Your task to perform on an android device: What is the news today? Image 0: 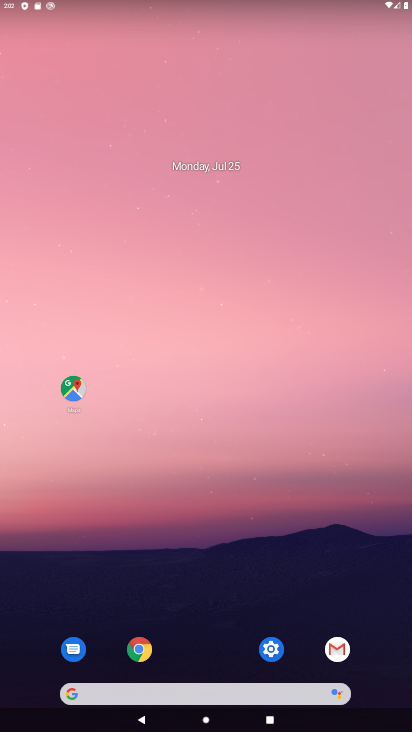
Step 0: click (207, 693)
Your task to perform on an android device: What is the news today? Image 1: 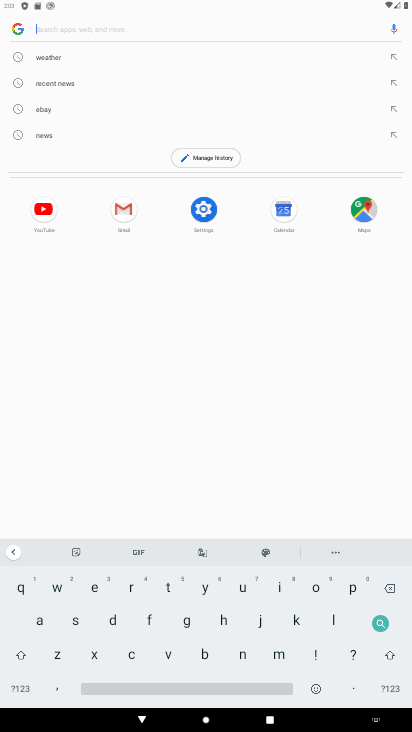
Step 1: click (240, 660)
Your task to perform on an android device: What is the news today? Image 2: 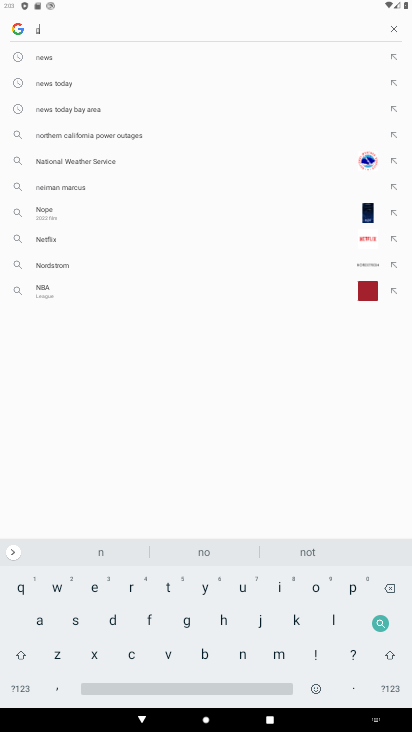
Step 2: click (94, 584)
Your task to perform on an android device: What is the news today? Image 3: 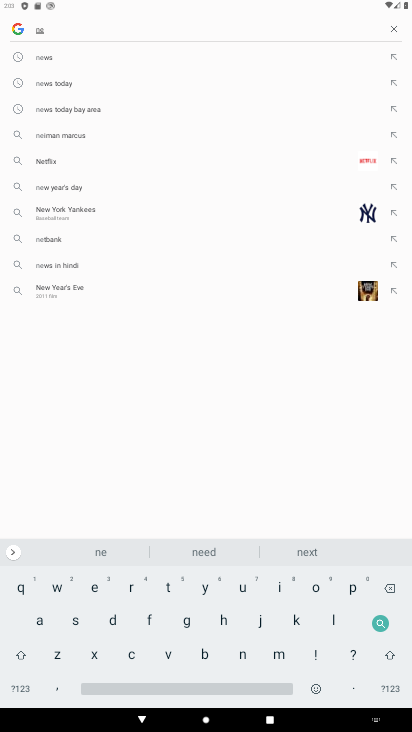
Step 3: click (44, 585)
Your task to perform on an android device: What is the news today? Image 4: 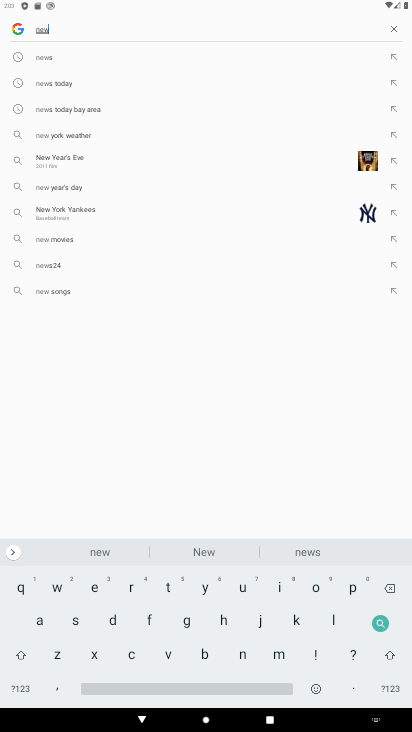
Step 4: click (53, 56)
Your task to perform on an android device: What is the news today? Image 5: 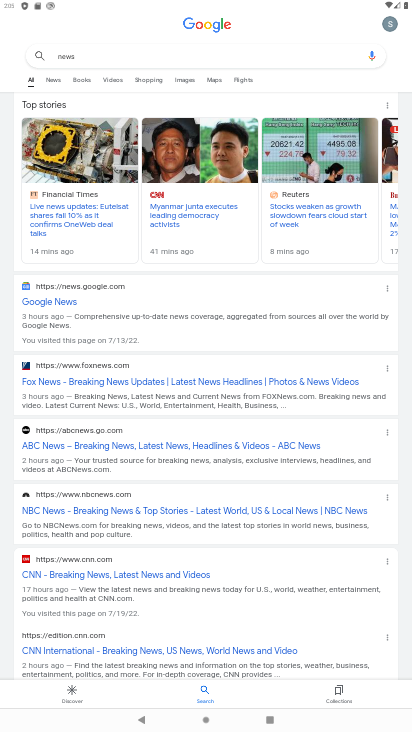
Step 5: task complete